Your task to perform on an android device: open app "Flipkart Online Shopping App" (install if not already installed) and go to login screen Image 0: 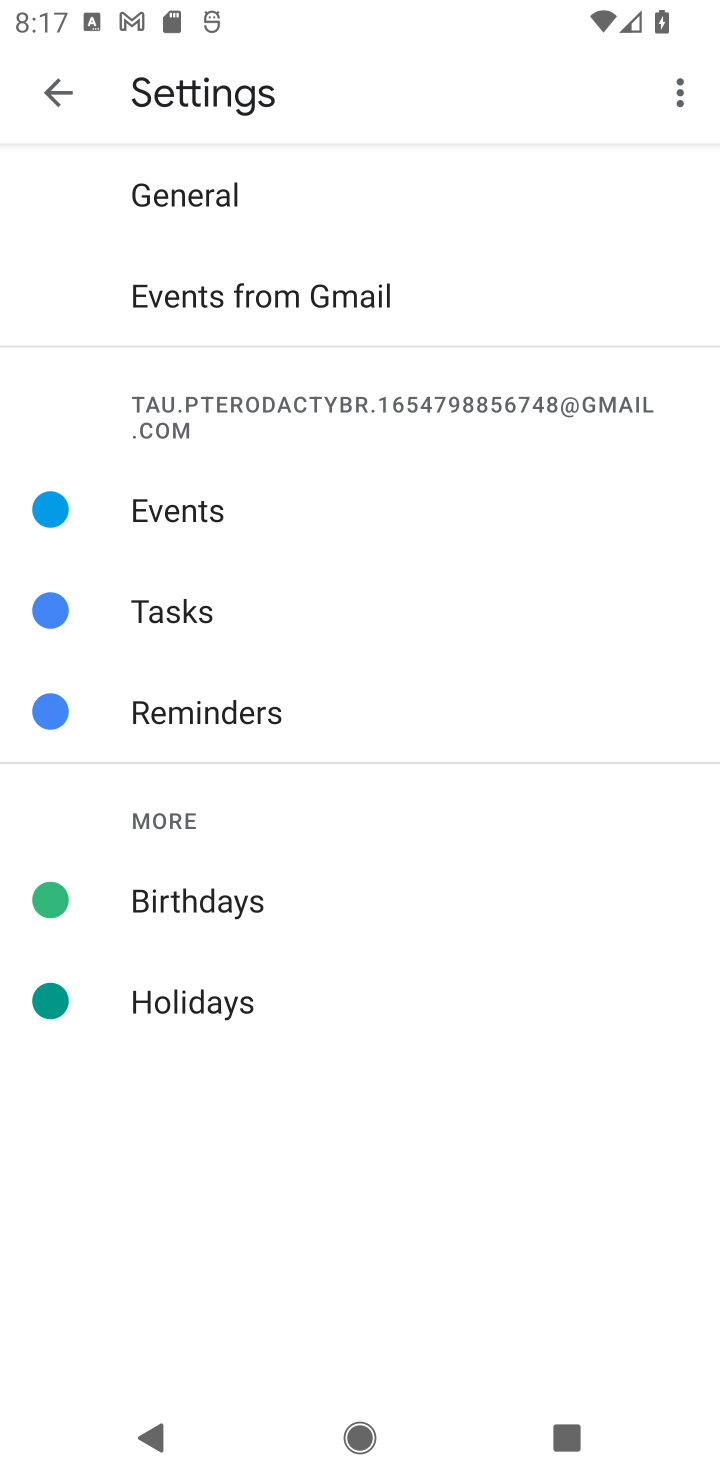
Step 0: press home button
Your task to perform on an android device: open app "Flipkart Online Shopping App" (install if not already installed) and go to login screen Image 1: 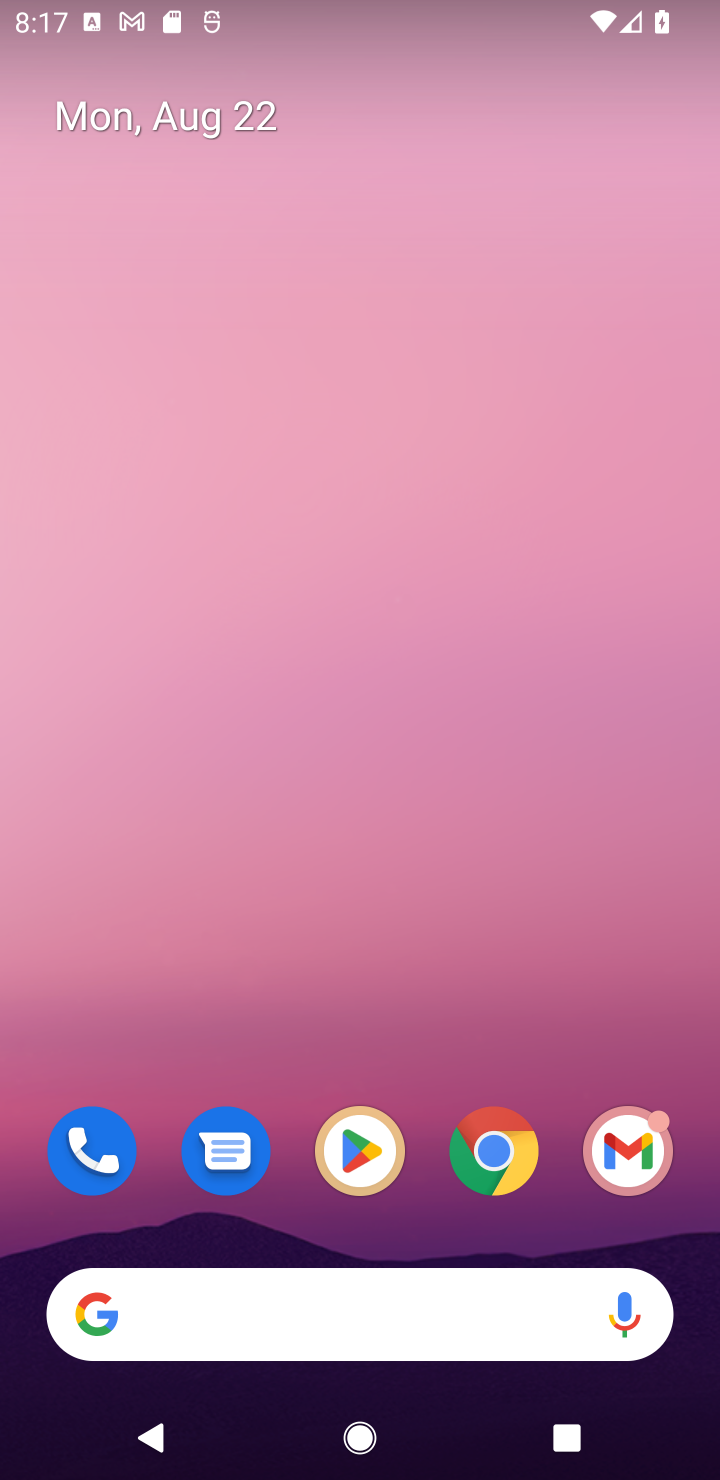
Step 1: click (368, 1149)
Your task to perform on an android device: open app "Flipkart Online Shopping App" (install if not already installed) and go to login screen Image 2: 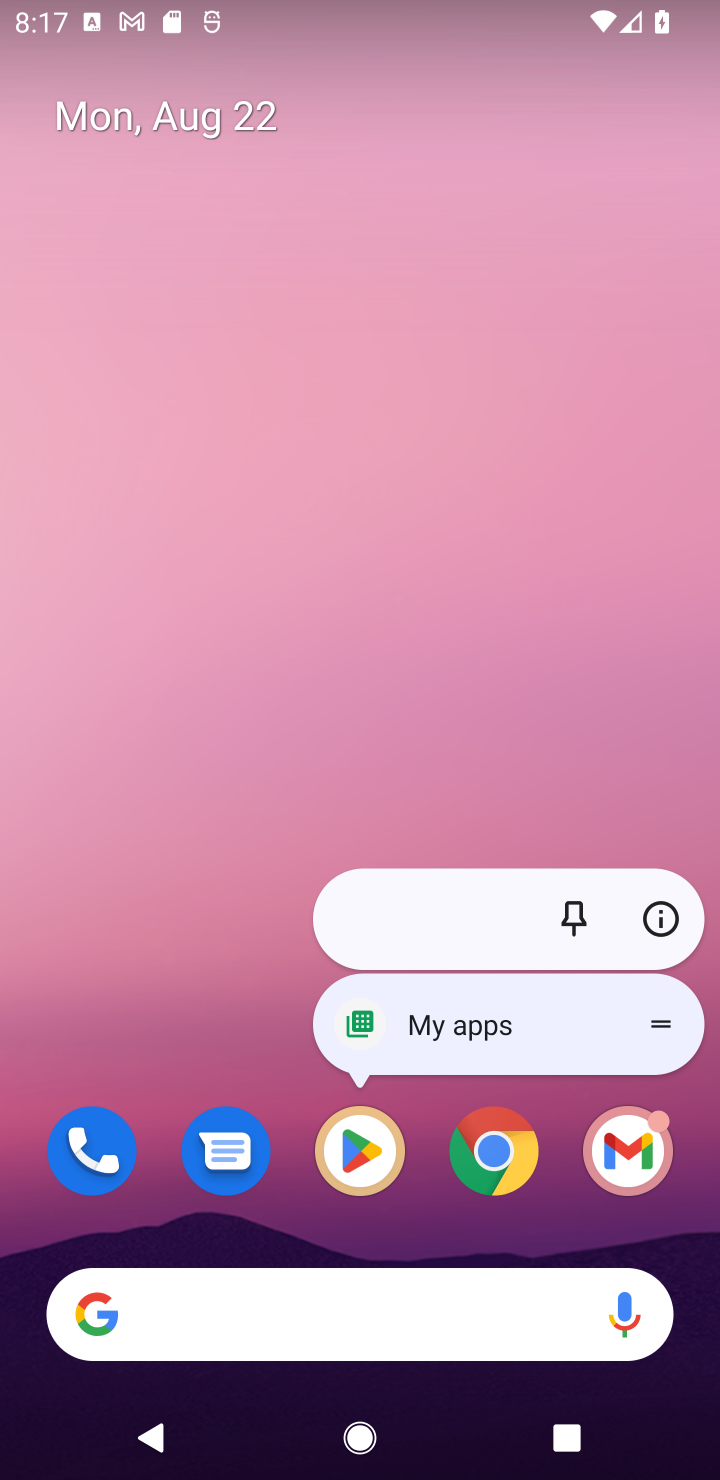
Step 2: click (368, 1153)
Your task to perform on an android device: open app "Flipkart Online Shopping App" (install if not already installed) and go to login screen Image 3: 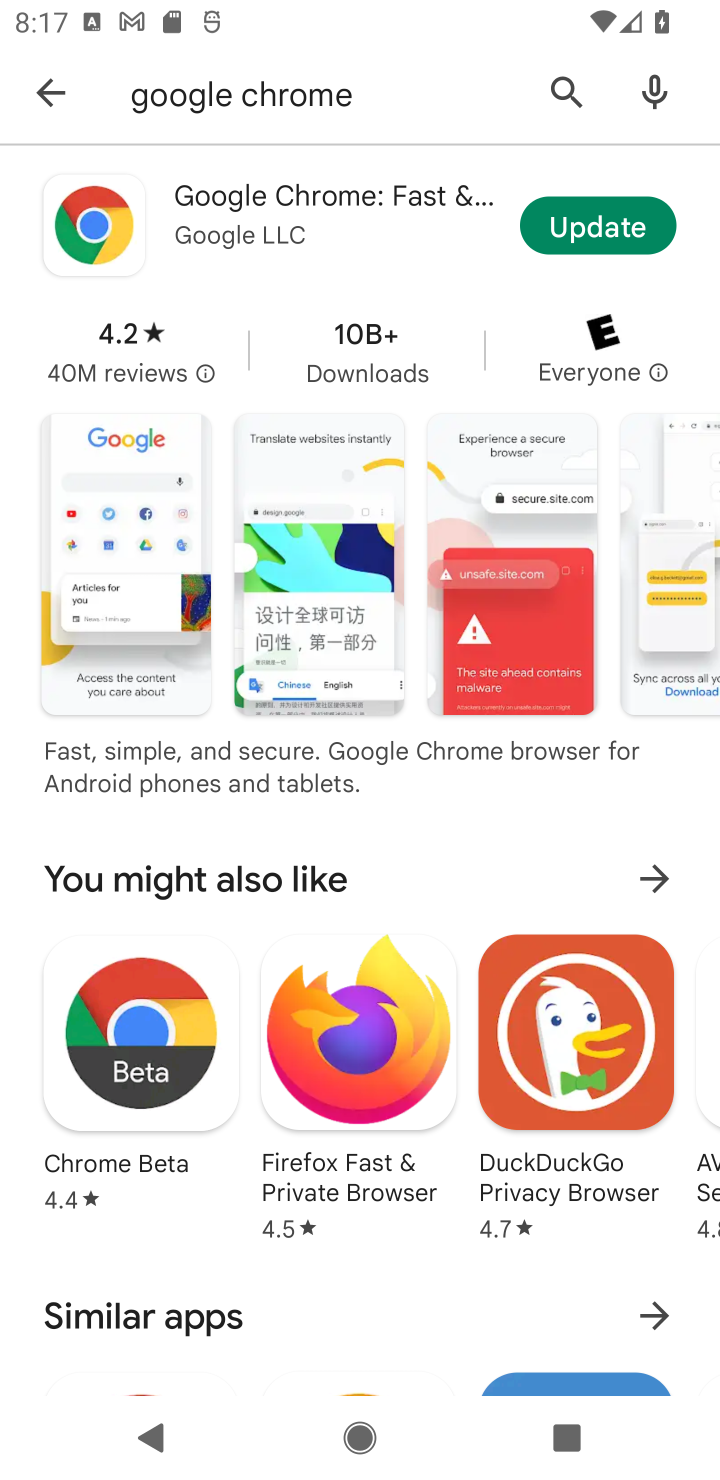
Step 3: click (565, 86)
Your task to perform on an android device: open app "Flipkart Online Shopping App" (install if not already installed) and go to login screen Image 4: 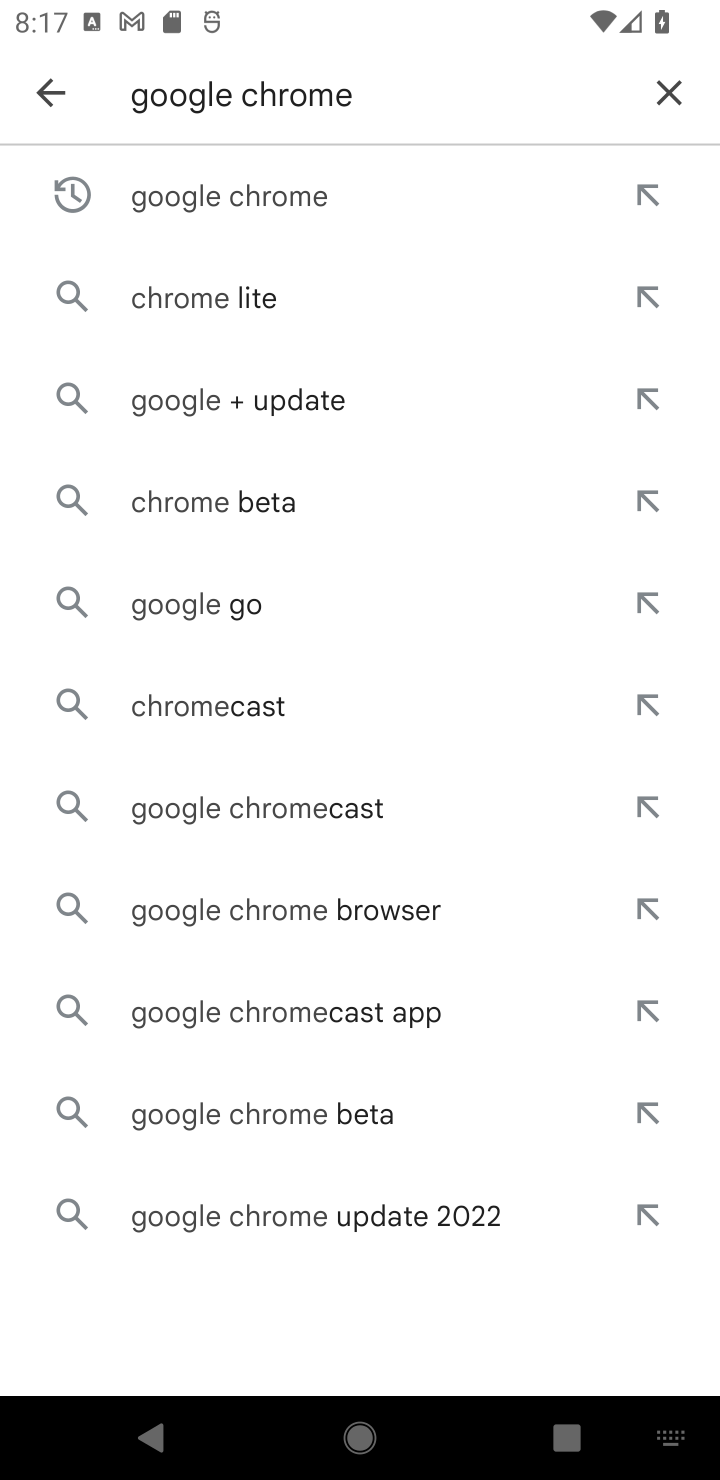
Step 4: click (657, 100)
Your task to perform on an android device: open app "Flipkart Online Shopping App" (install if not already installed) and go to login screen Image 5: 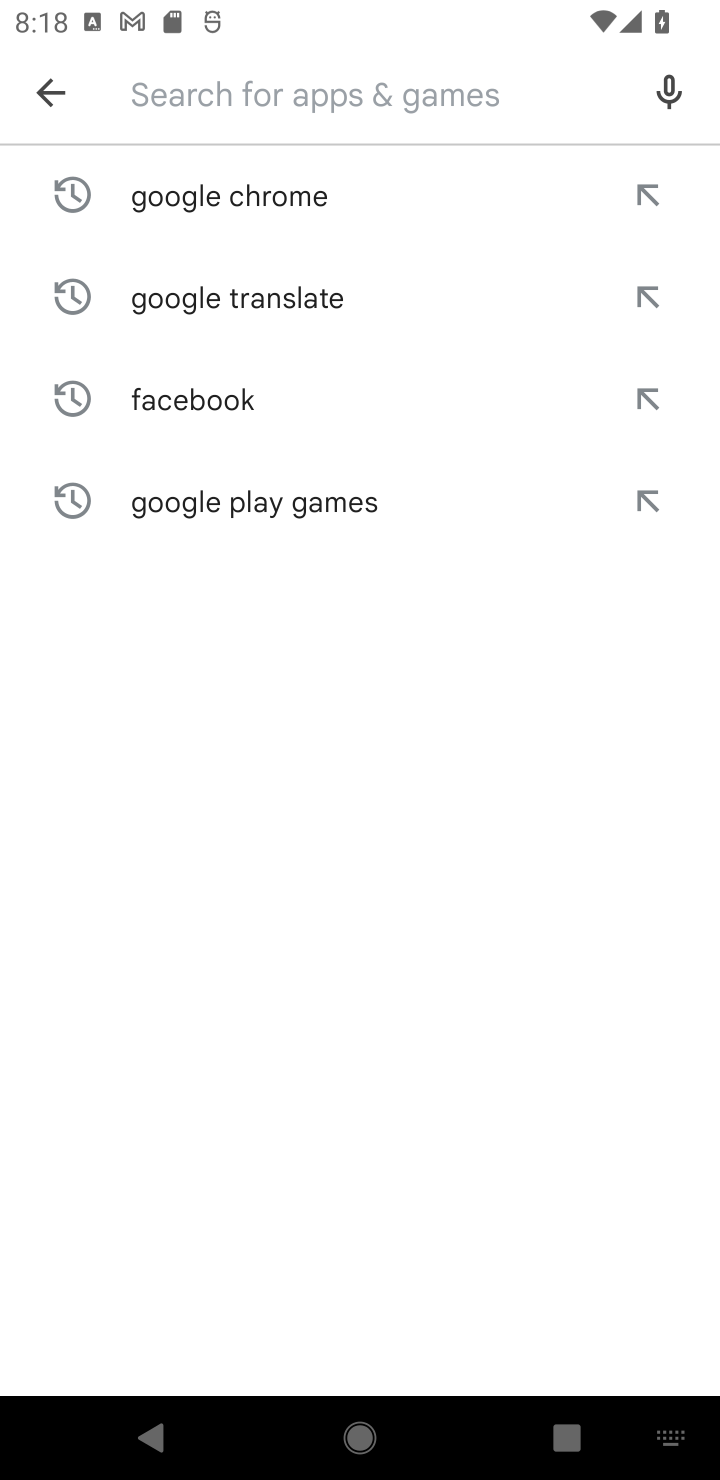
Step 5: type "Flipkart Online Shopping App"
Your task to perform on an android device: open app "Flipkart Online Shopping App" (install if not already installed) and go to login screen Image 6: 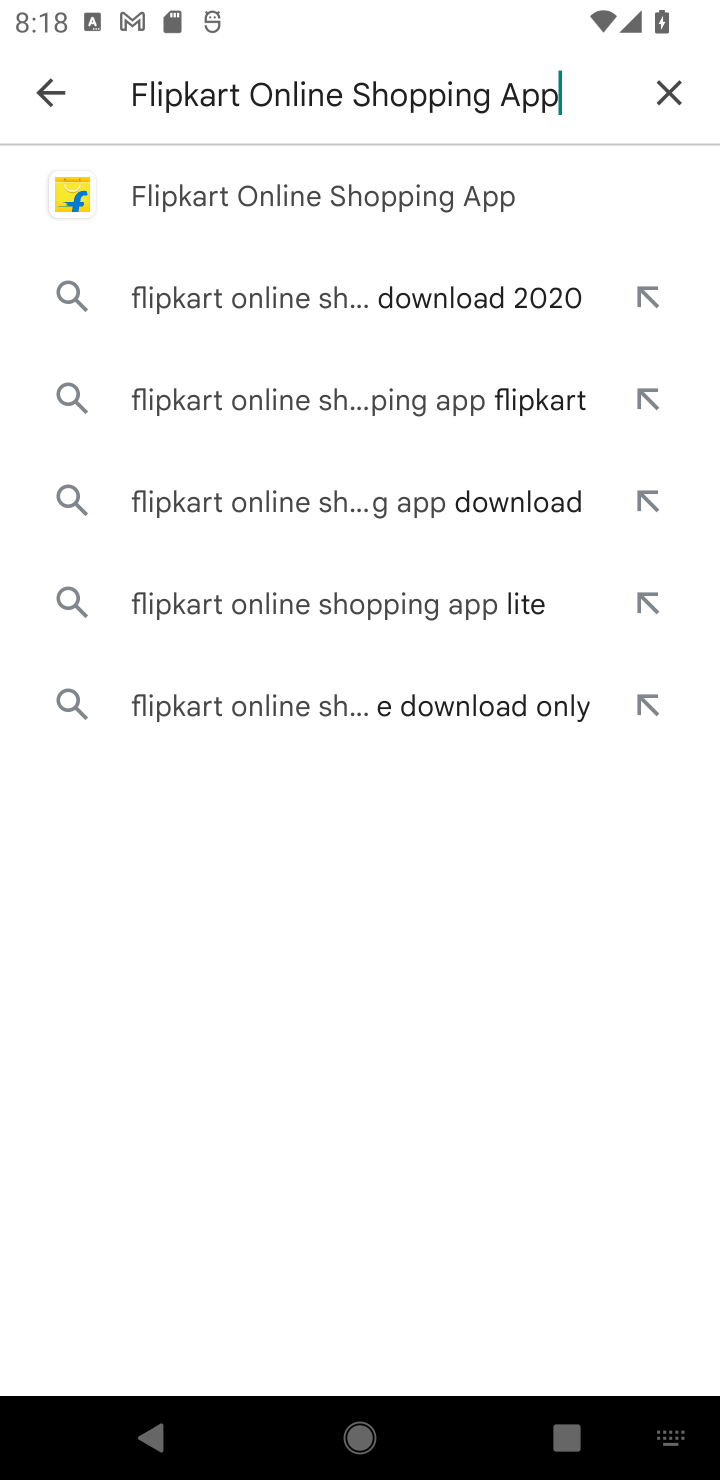
Step 6: click (321, 195)
Your task to perform on an android device: open app "Flipkart Online Shopping App" (install if not already installed) and go to login screen Image 7: 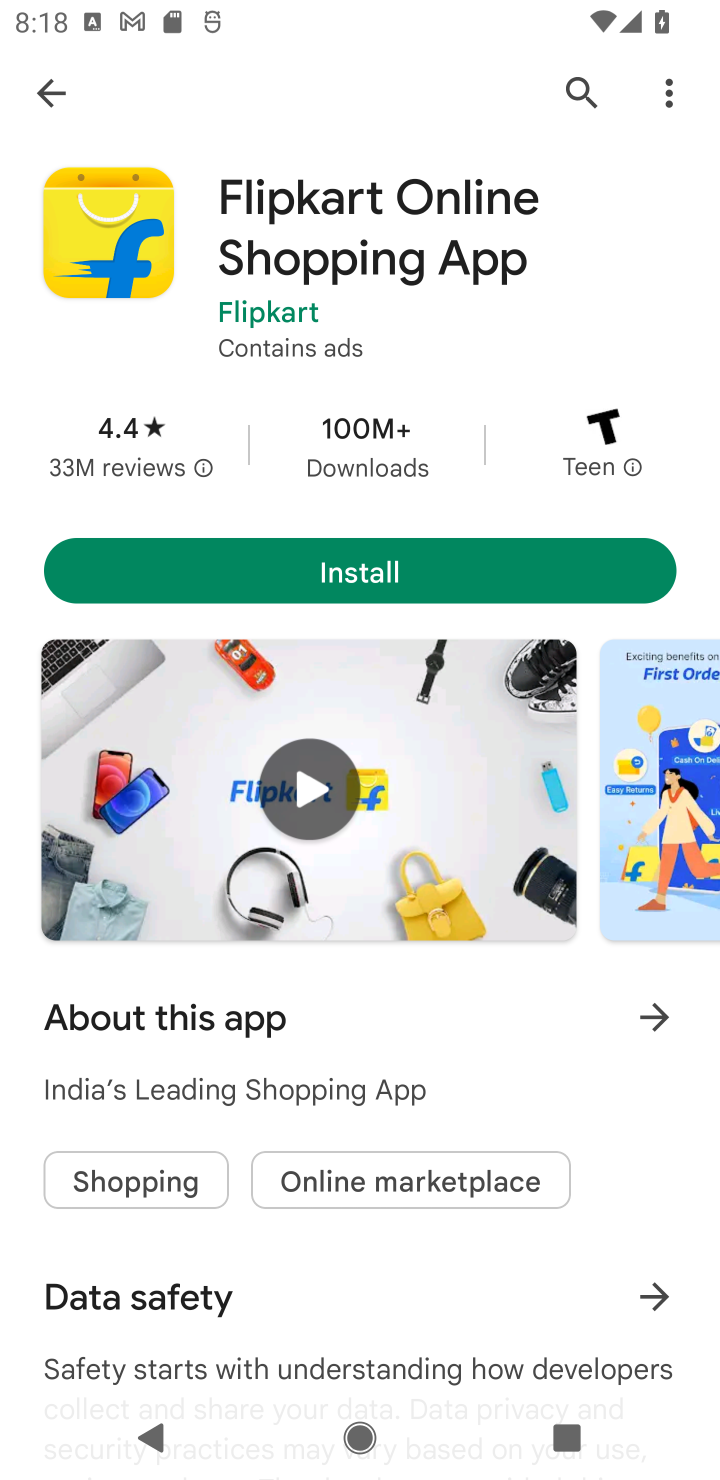
Step 7: click (356, 570)
Your task to perform on an android device: open app "Flipkart Online Shopping App" (install if not already installed) and go to login screen Image 8: 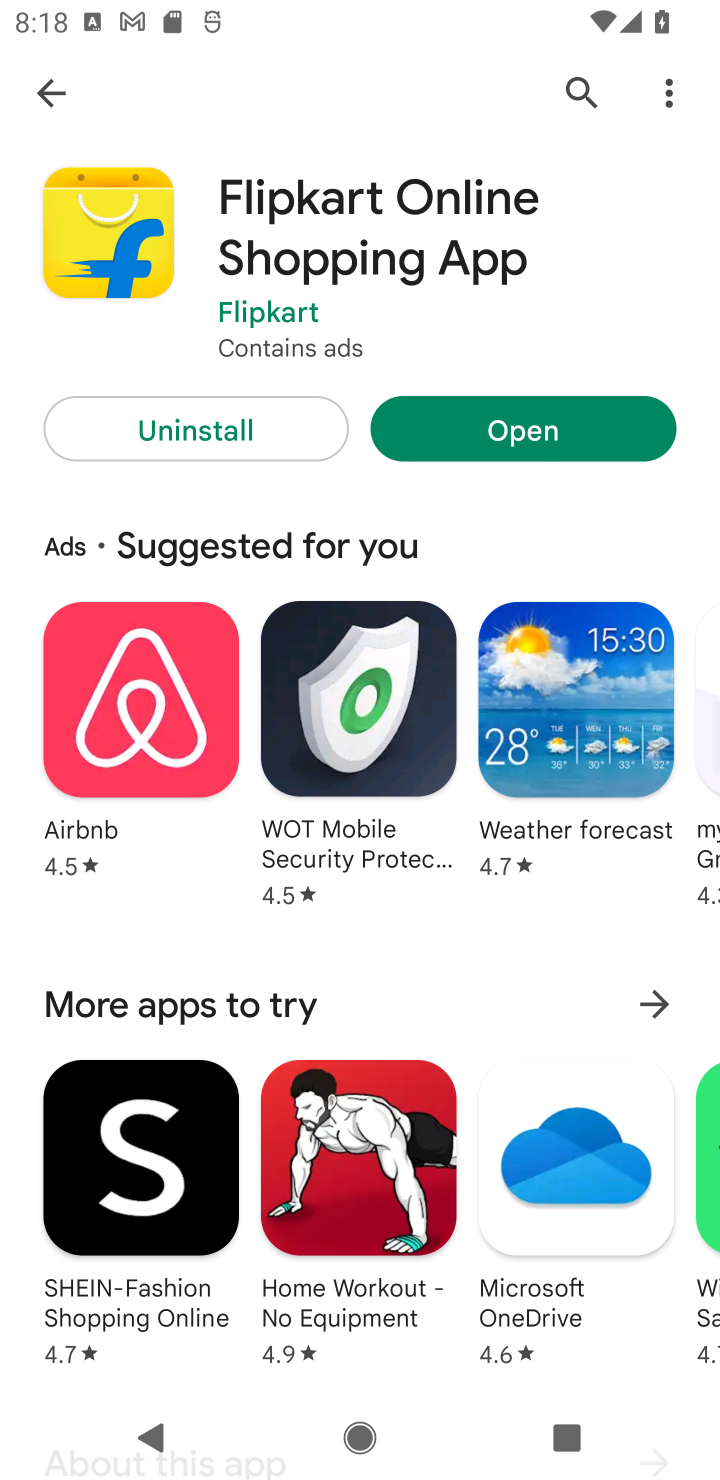
Step 8: click (514, 429)
Your task to perform on an android device: open app "Flipkart Online Shopping App" (install if not already installed) and go to login screen Image 9: 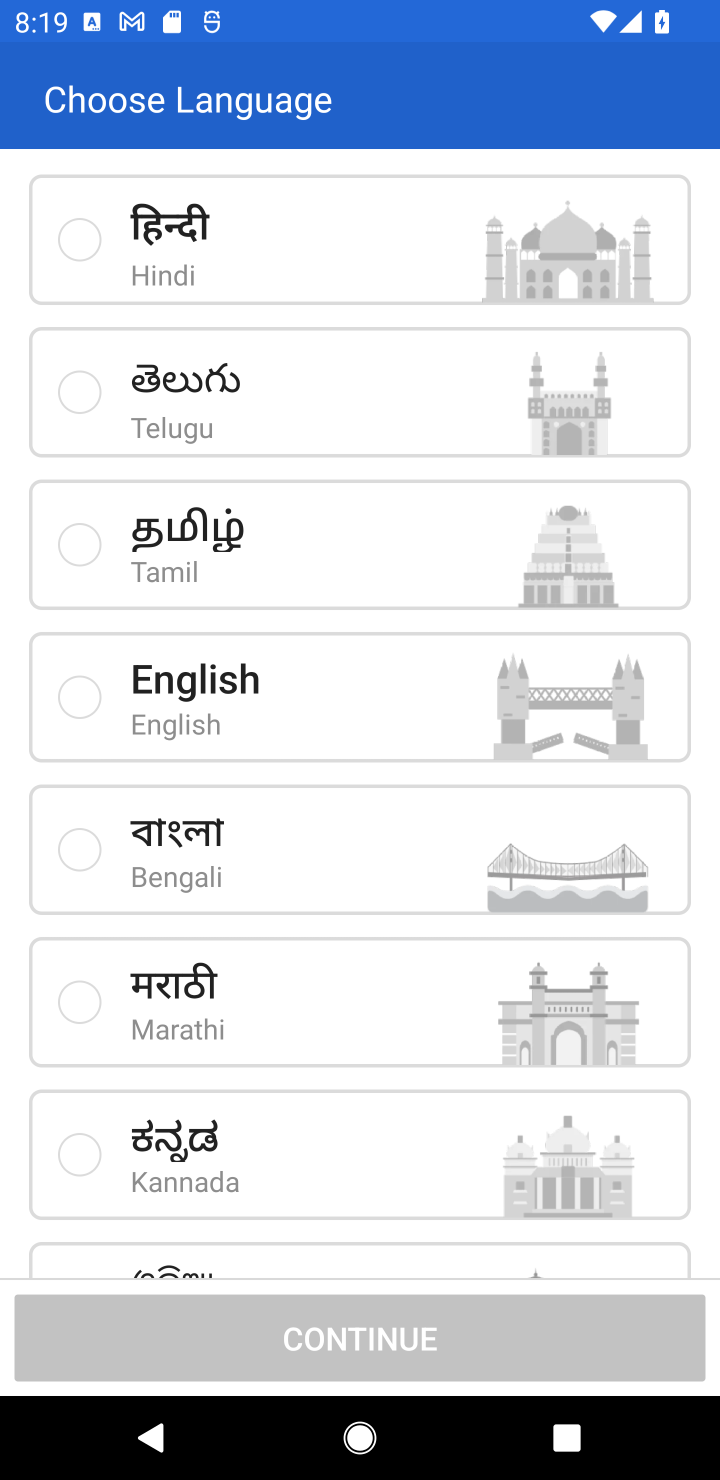
Step 9: click (77, 692)
Your task to perform on an android device: open app "Flipkart Online Shopping App" (install if not already installed) and go to login screen Image 10: 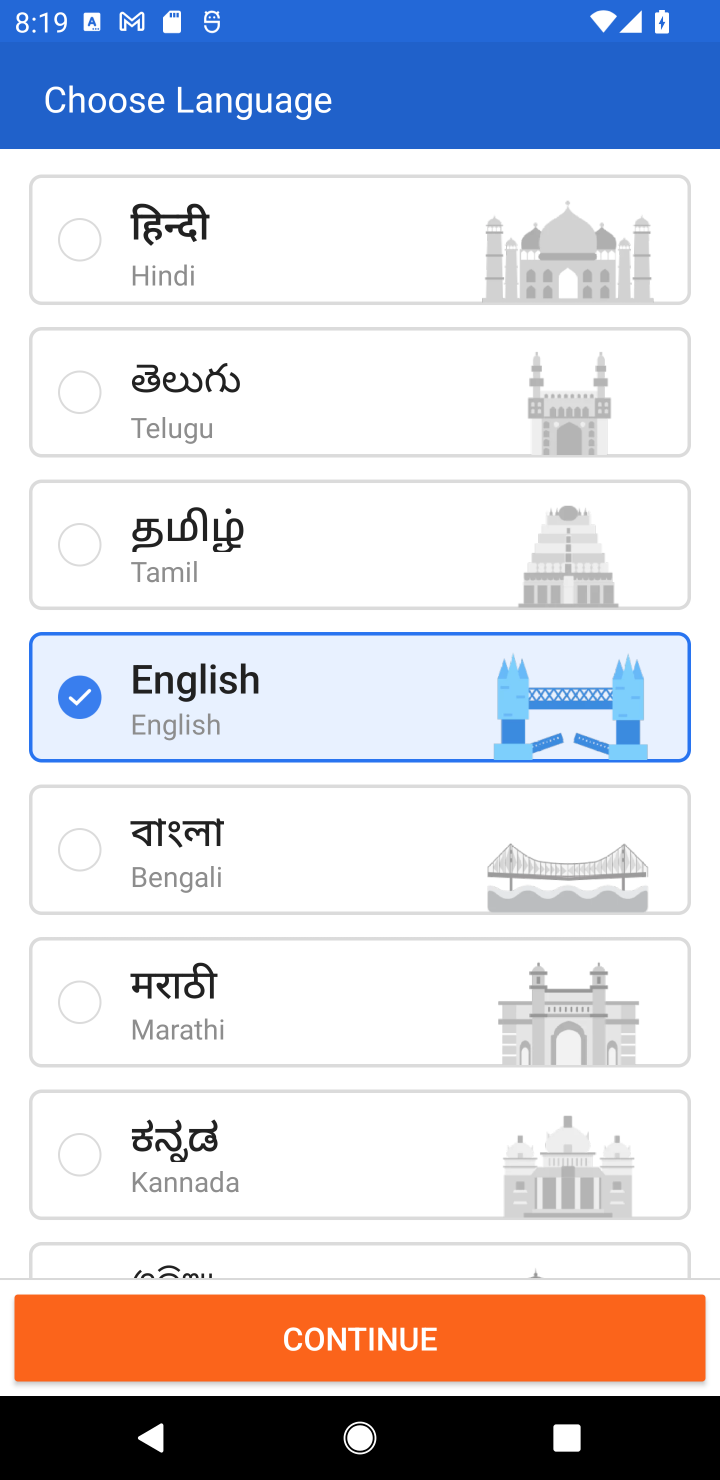
Step 10: click (356, 1338)
Your task to perform on an android device: open app "Flipkart Online Shopping App" (install if not already installed) and go to login screen Image 11: 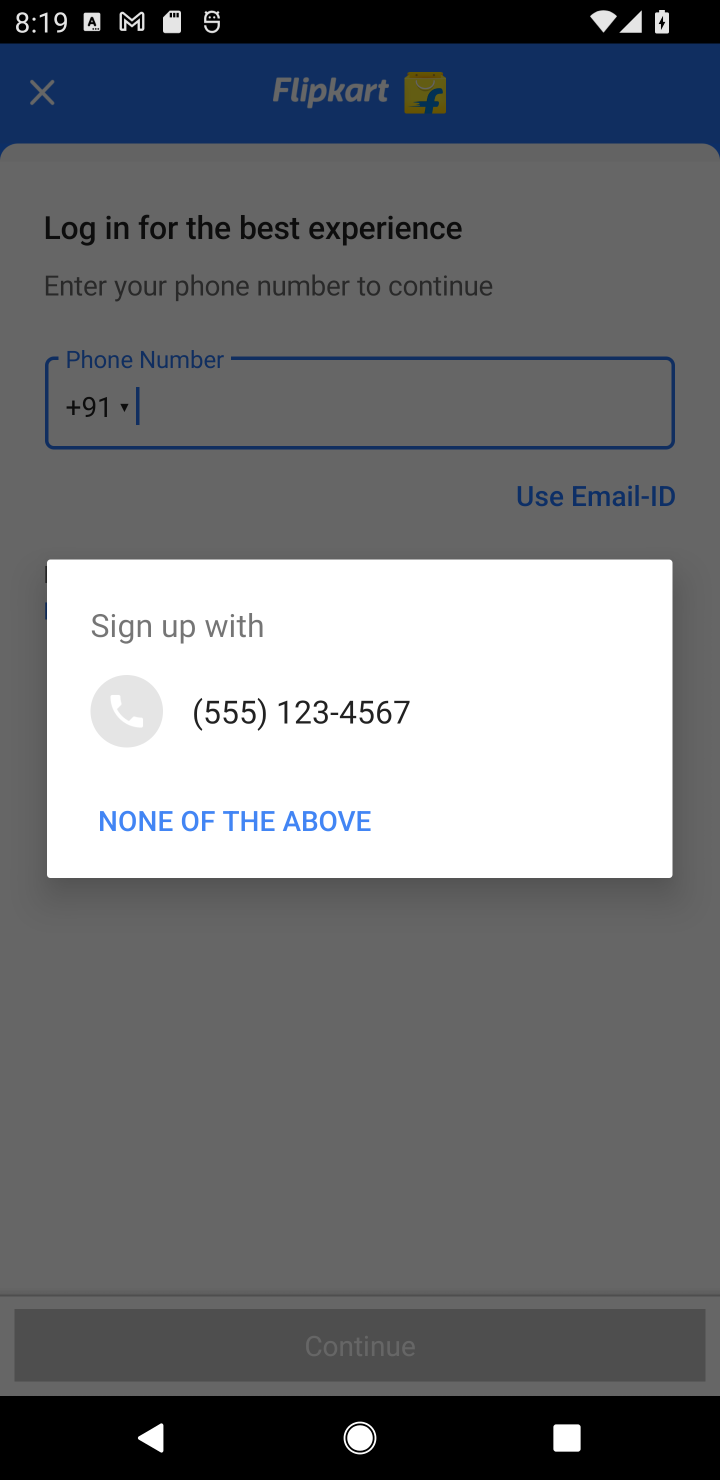
Step 11: task complete